Your task to perform on an android device: See recent photos Image 0: 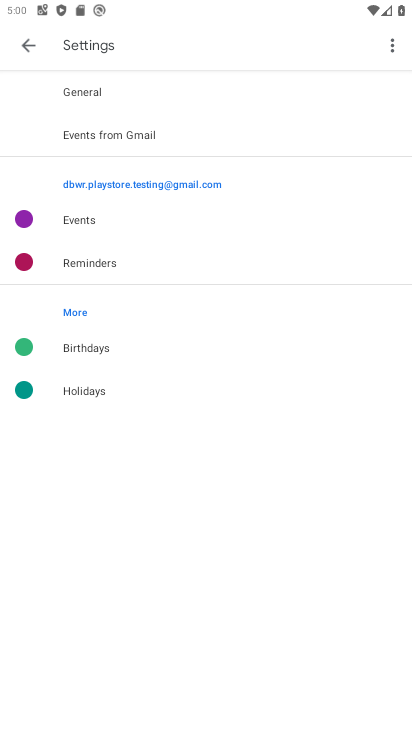
Step 0: press home button
Your task to perform on an android device: See recent photos Image 1: 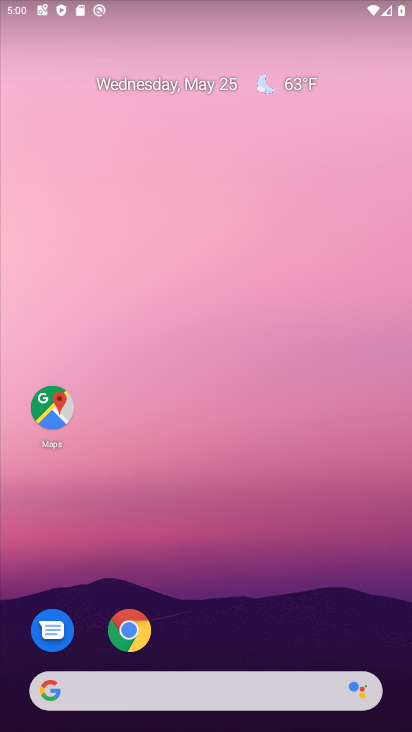
Step 1: drag from (215, 597) to (293, 7)
Your task to perform on an android device: See recent photos Image 2: 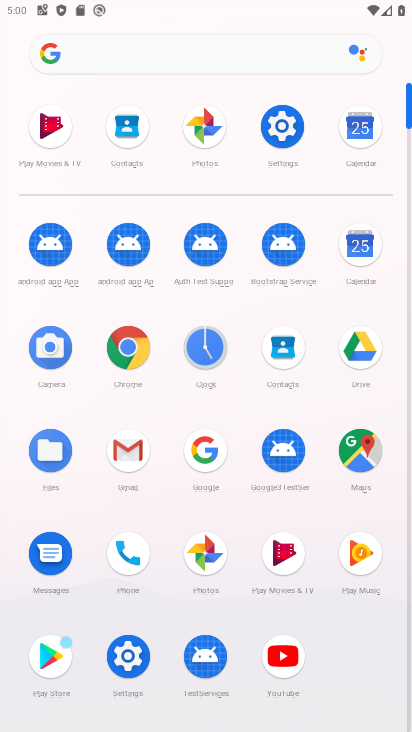
Step 2: click (200, 557)
Your task to perform on an android device: See recent photos Image 3: 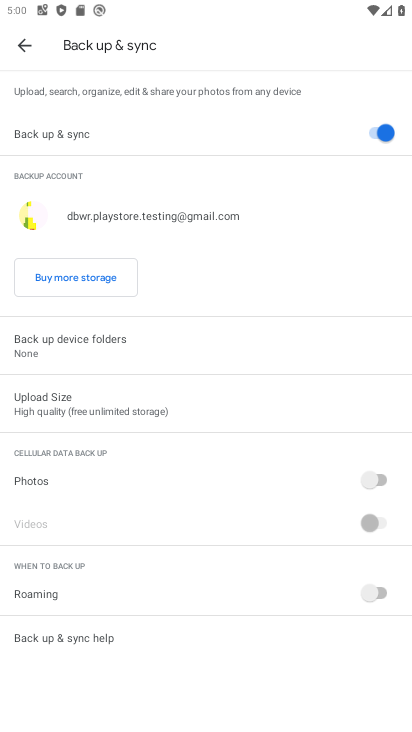
Step 3: click (21, 42)
Your task to perform on an android device: See recent photos Image 4: 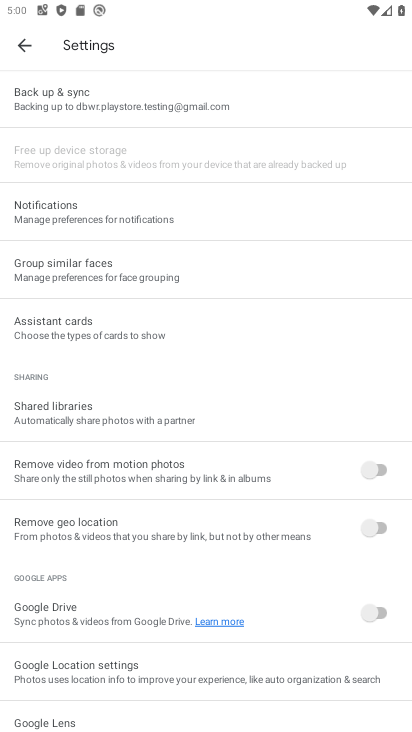
Step 4: click (25, 43)
Your task to perform on an android device: See recent photos Image 5: 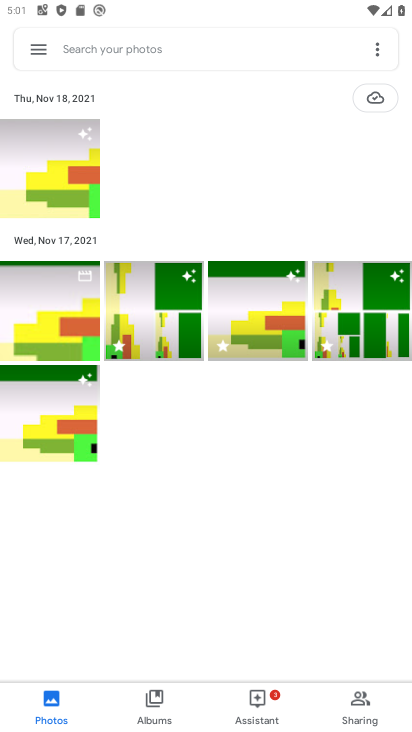
Step 5: task complete